Your task to perform on an android device: Open settings Image 0: 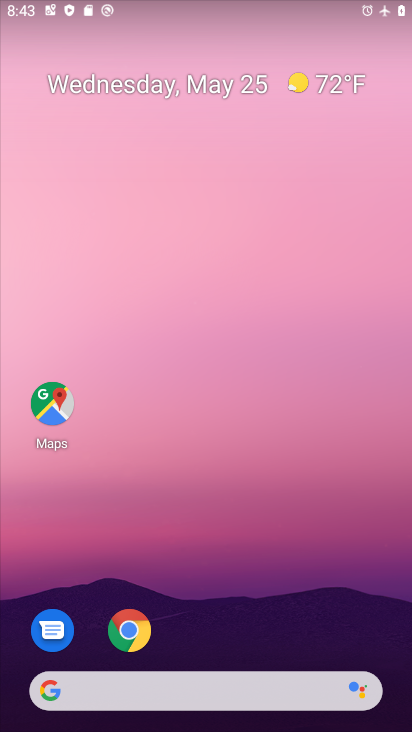
Step 0: drag from (236, 646) to (214, 161)
Your task to perform on an android device: Open settings Image 1: 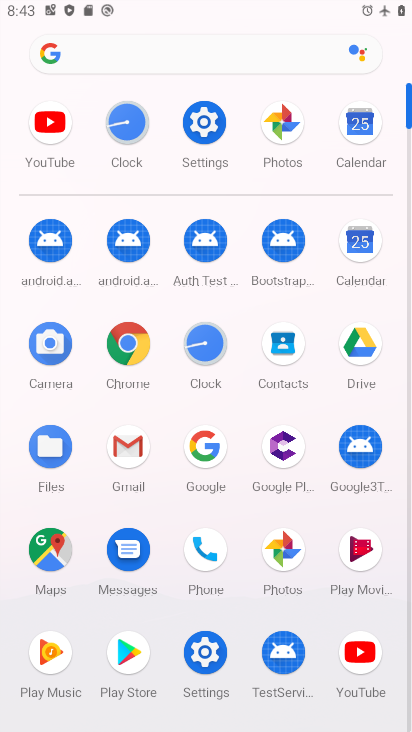
Step 1: click (208, 148)
Your task to perform on an android device: Open settings Image 2: 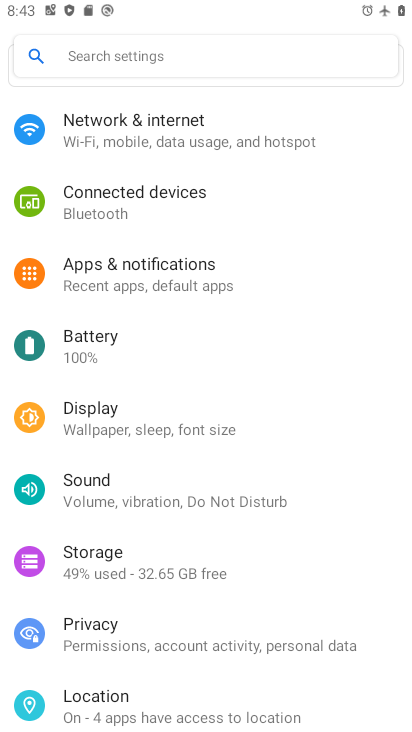
Step 2: task complete